Your task to perform on an android device: turn pop-ups off in chrome Image 0: 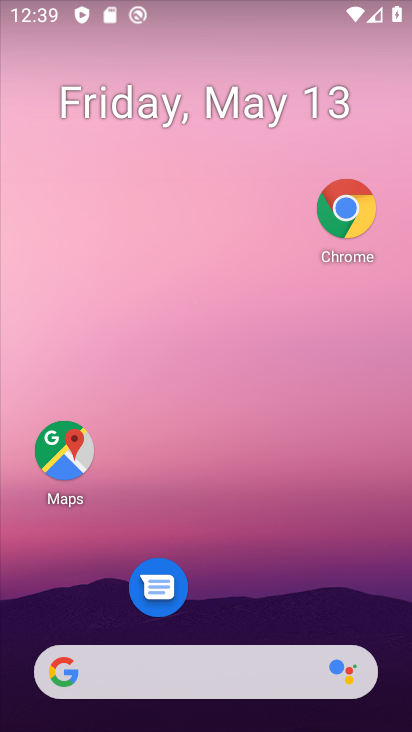
Step 0: click (334, 209)
Your task to perform on an android device: turn pop-ups off in chrome Image 1: 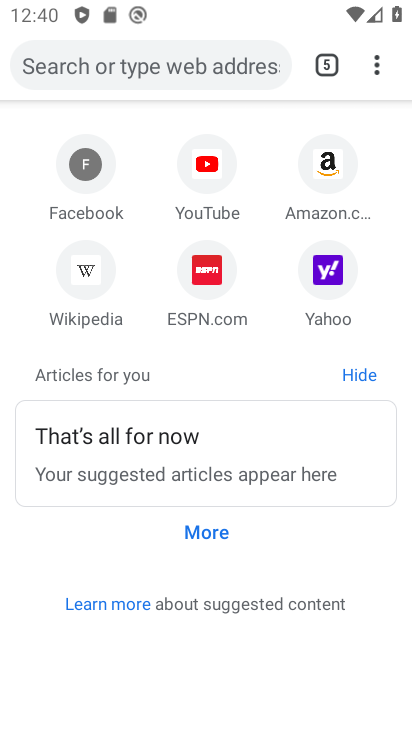
Step 1: drag from (378, 67) to (176, 541)
Your task to perform on an android device: turn pop-ups off in chrome Image 2: 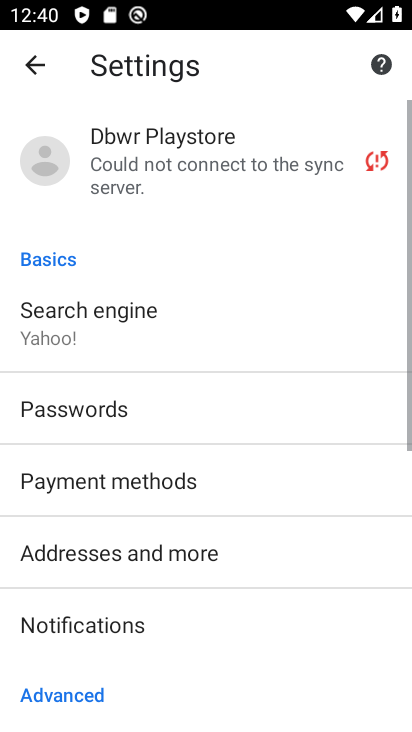
Step 2: drag from (138, 609) to (230, 172)
Your task to perform on an android device: turn pop-ups off in chrome Image 3: 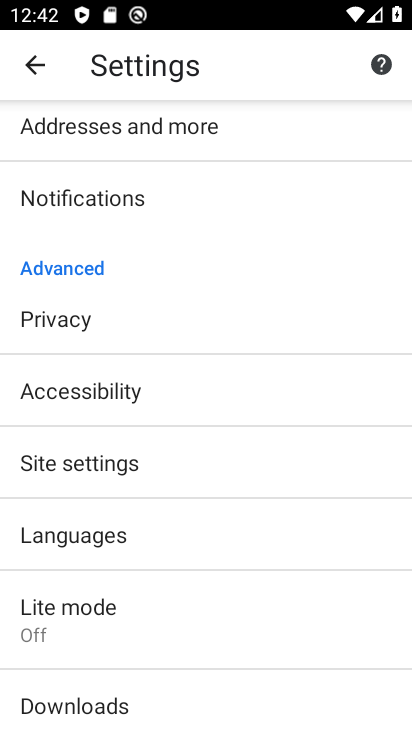
Step 3: click (207, 452)
Your task to perform on an android device: turn pop-ups off in chrome Image 4: 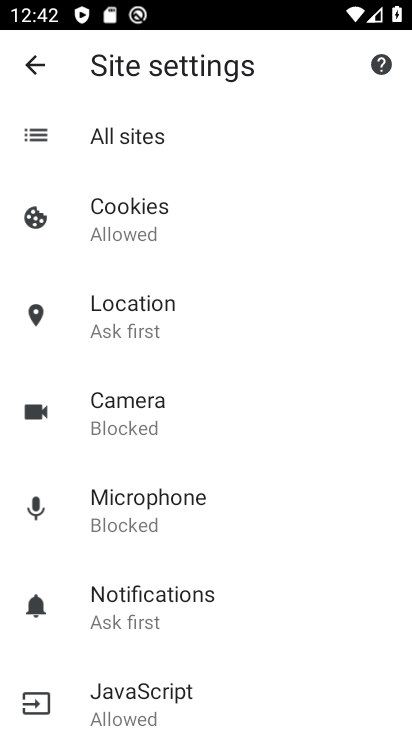
Step 4: drag from (183, 640) to (340, 190)
Your task to perform on an android device: turn pop-ups off in chrome Image 5: 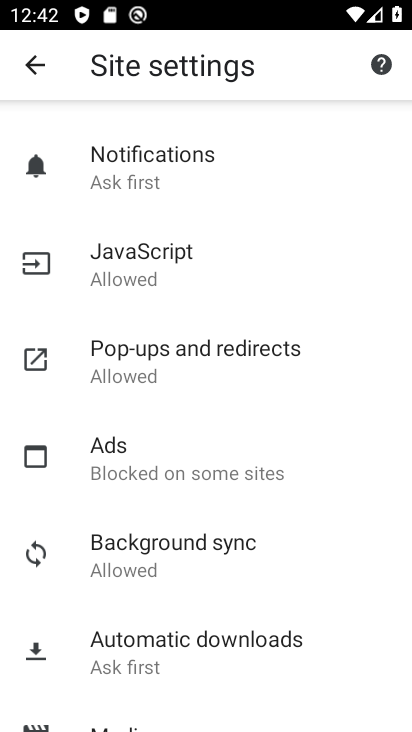
Step 5: click (184, 368)
Your task to perform on an android device: turn pop-ups off in chrome Image 6: 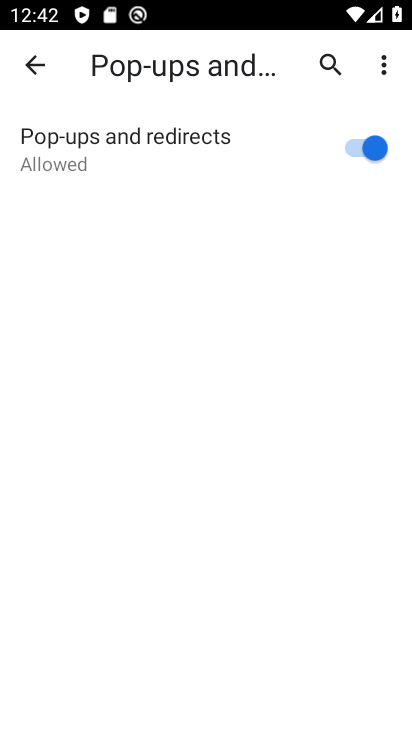
Step 6: click (365, 152)
Your task to perform on an android device: turn pop-ups off in chrome Image 7: 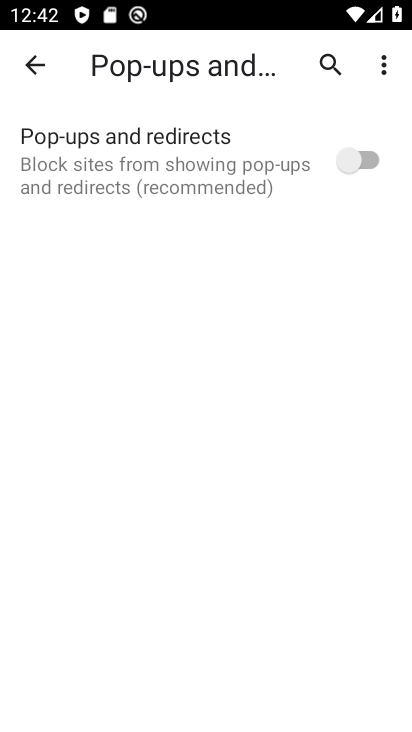
Step 7: task complete